Your task to perform on an android device: Show the shopping cart on bestbuy.com. Search for panasonic triple a on bestbuy.com, select the first entry, and add it to the cart. Image 0: 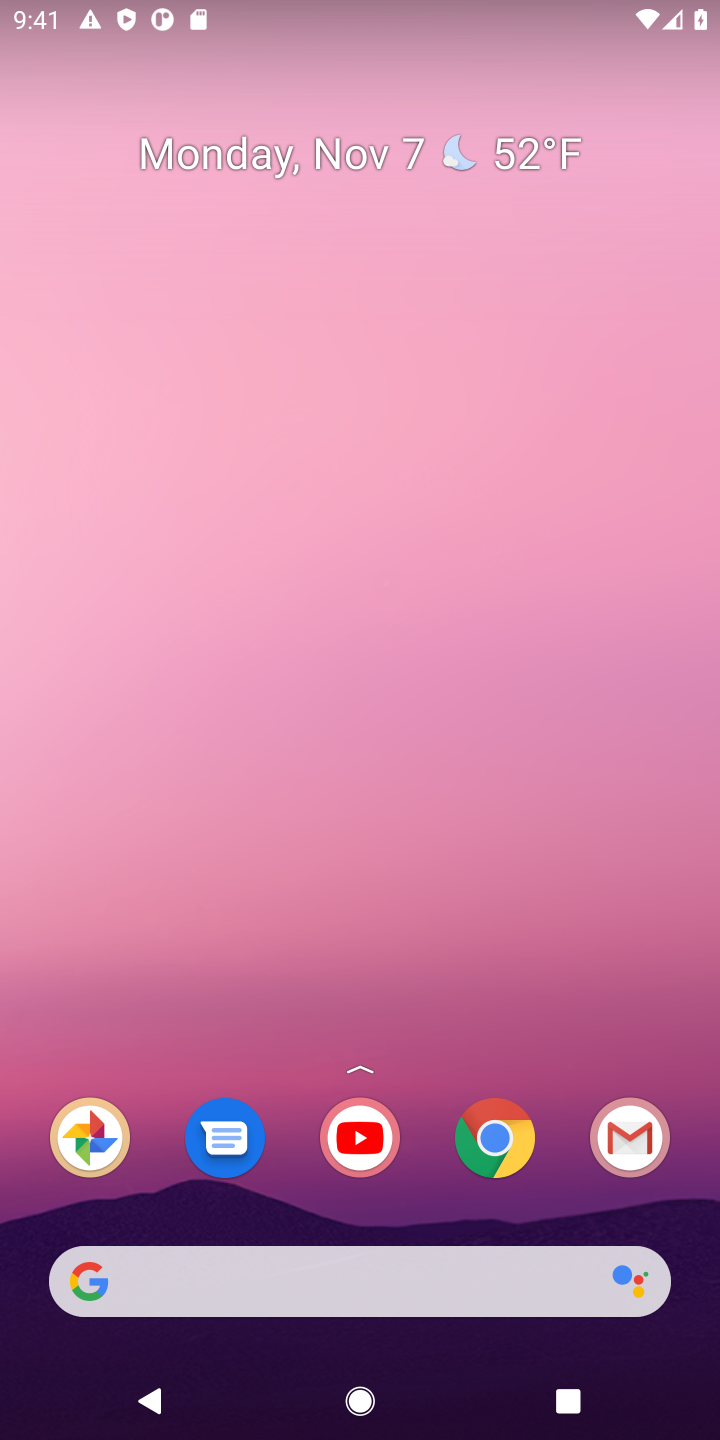
Step 0: drag from (414, 1211) to (467, 180)
Your task to perform on an android device: Show the shopping cart on bestbuy.com. Search for panasonic triple a on bestbuy.com, select the first entry, and add it to the cart. Image 1: 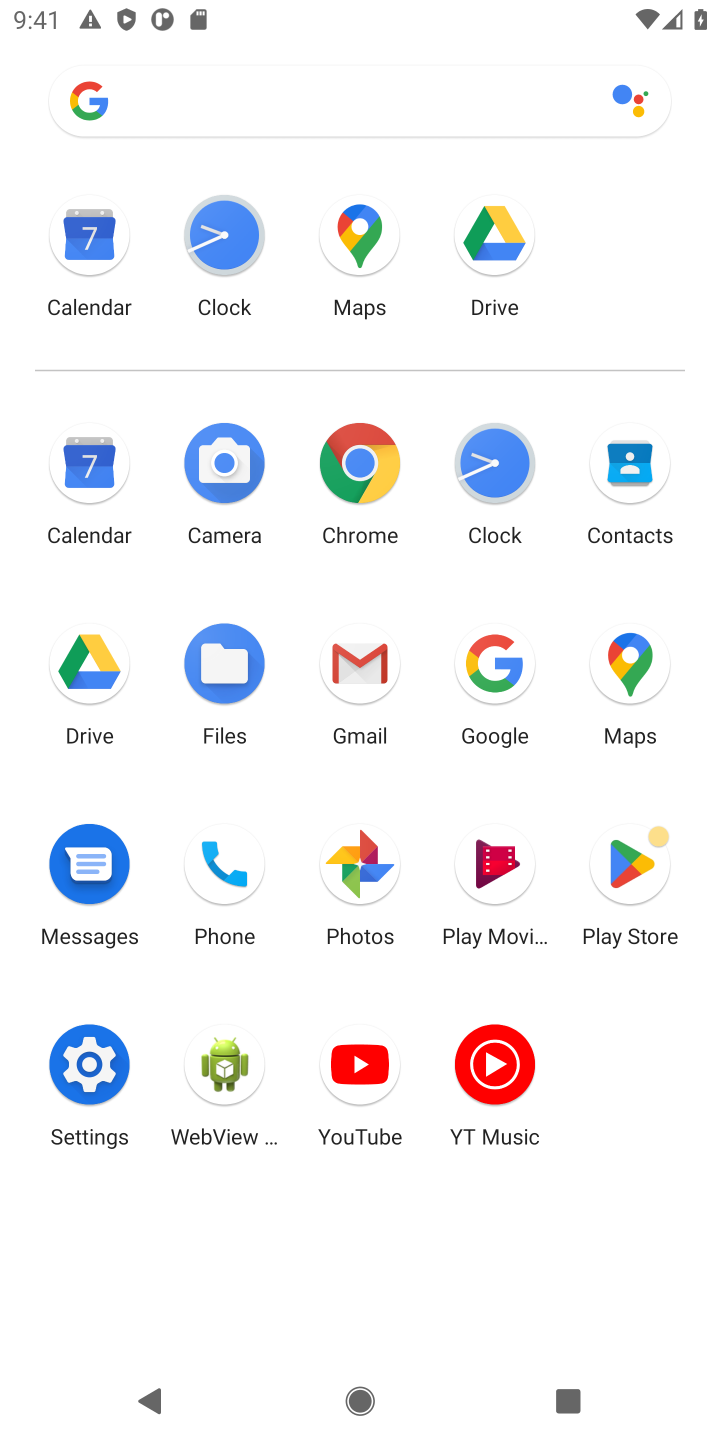
Step 1: click (357, 456)
Your task to perform on an android device: Show the shopping cart on bestbuy.com. Search for panasonic triple a on bestbuy.com, select the first entry, and add it to the cart. Image 2: 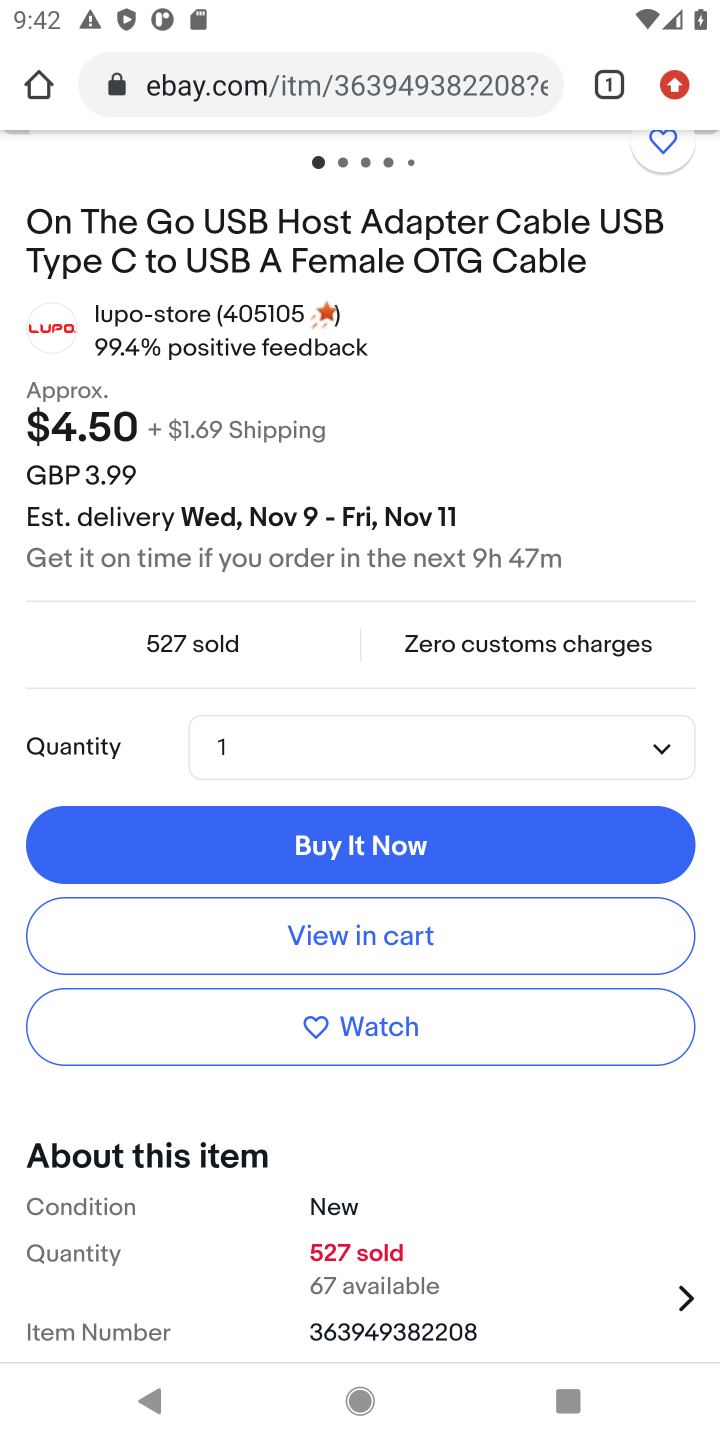
Step 2: click (378, 86)
Your task to perform on an android device: Show the shopping cart on bestbuy.com. Search for panasonic triple a on bestbuy.com, select the first entry, and add it to the cart. Image 3: 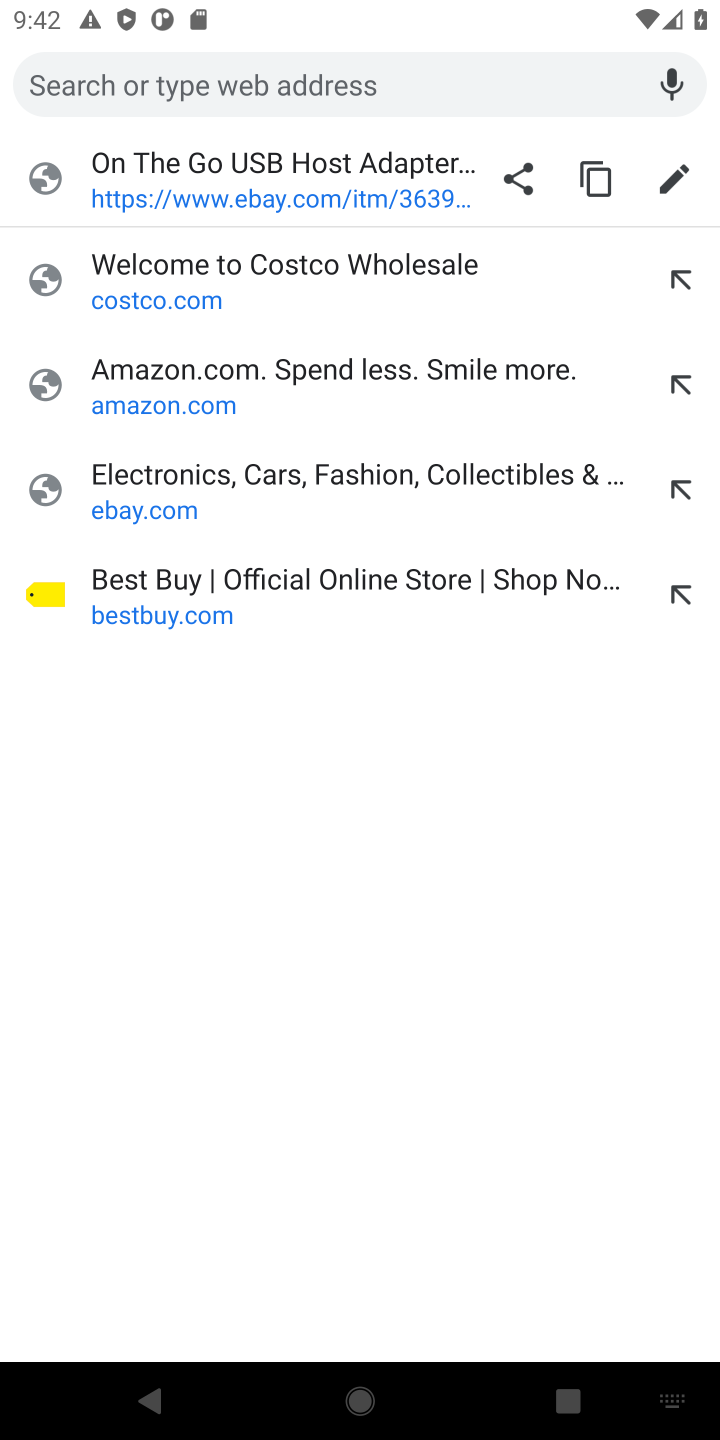
Step 3: type "bestbuy.com"
Your task to perform on an android device: Show the shopping cart on bestbuy.com. Search for panasonic triple a on bestbuy.com, select the first entry, and add it to the cart. Image 4: 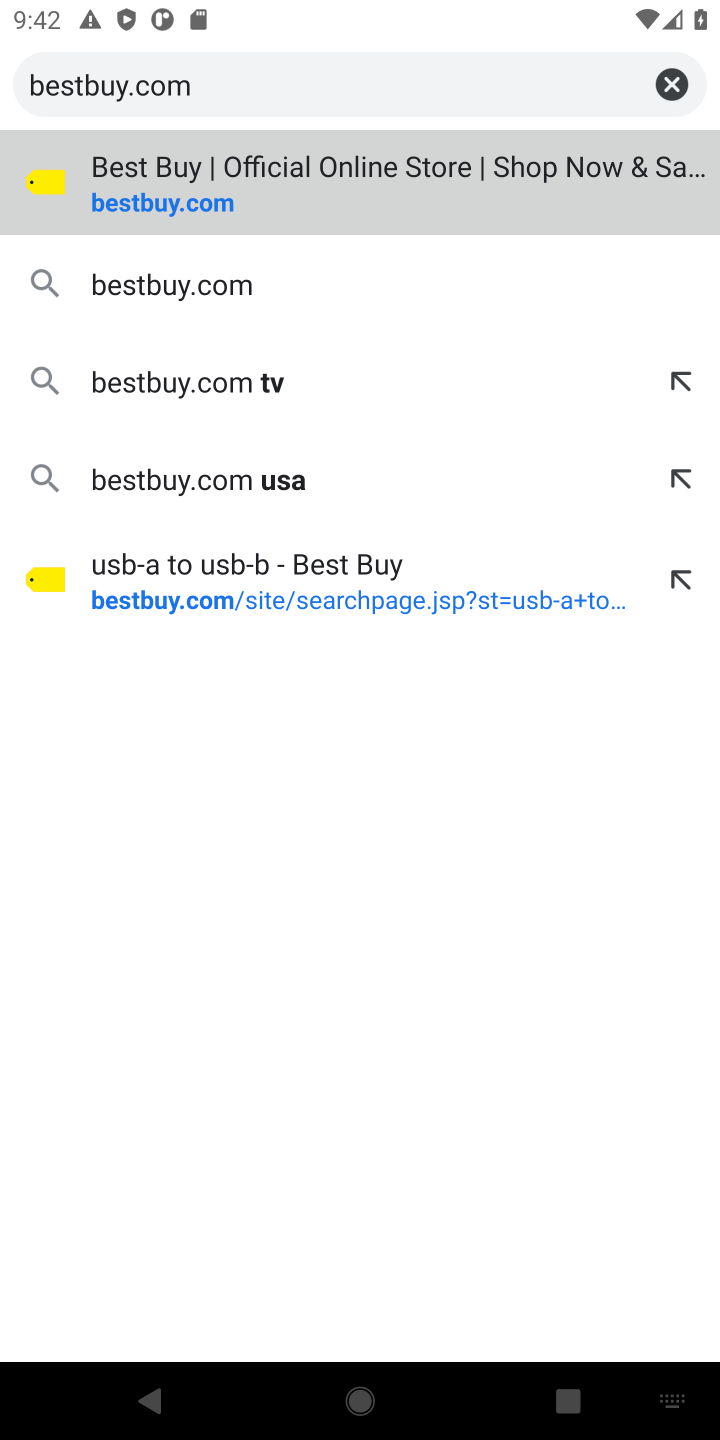
Step 4: press enter
Your task to perform on an android device: Show the shopping cart on bestbuy.com. Search for panasonic triple a on bestbuy.com, select the first entry, and add it to the cart. Image 5: 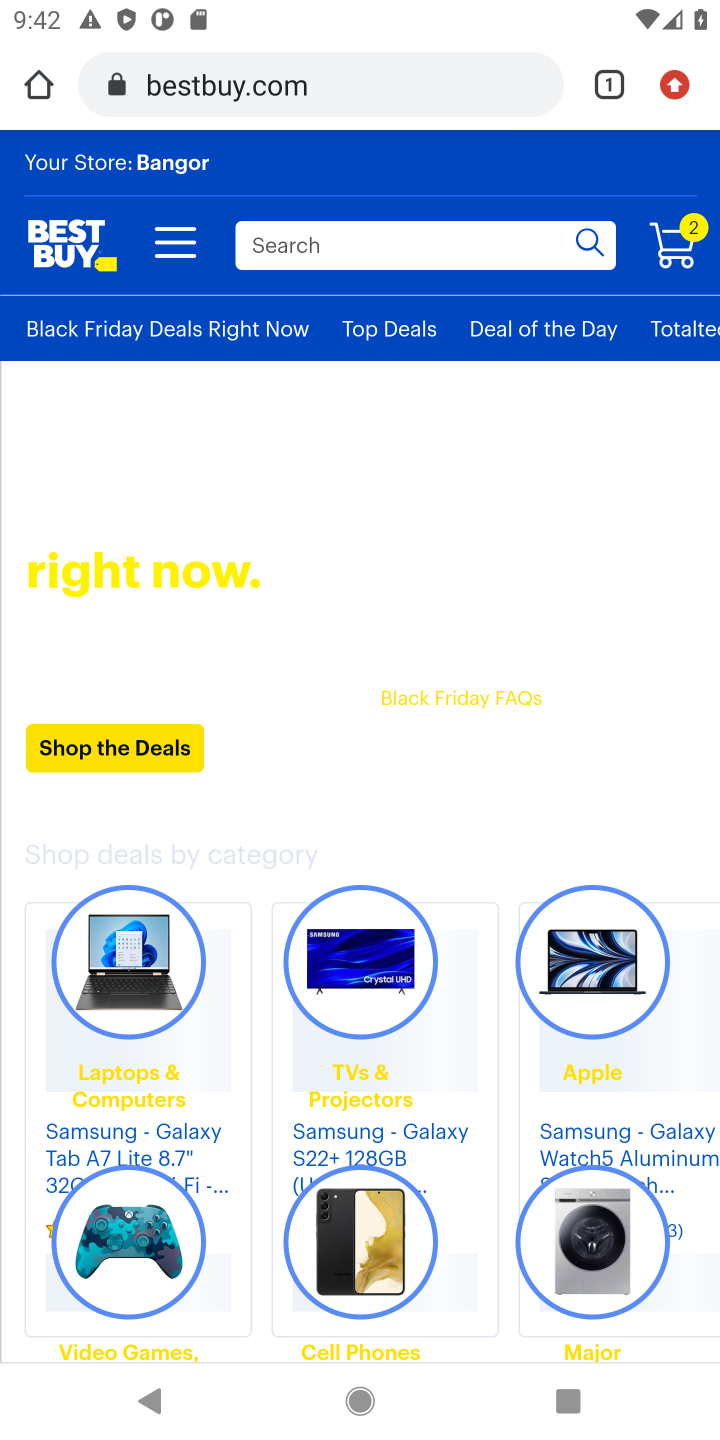
Step 5: click (672, 233)
Your task to perform on an android device: Show the shopping cart on bestbuy.com. Search for panasonic triple a on bestbuy.com, select the first entry, and add it to the cart. Image 6: 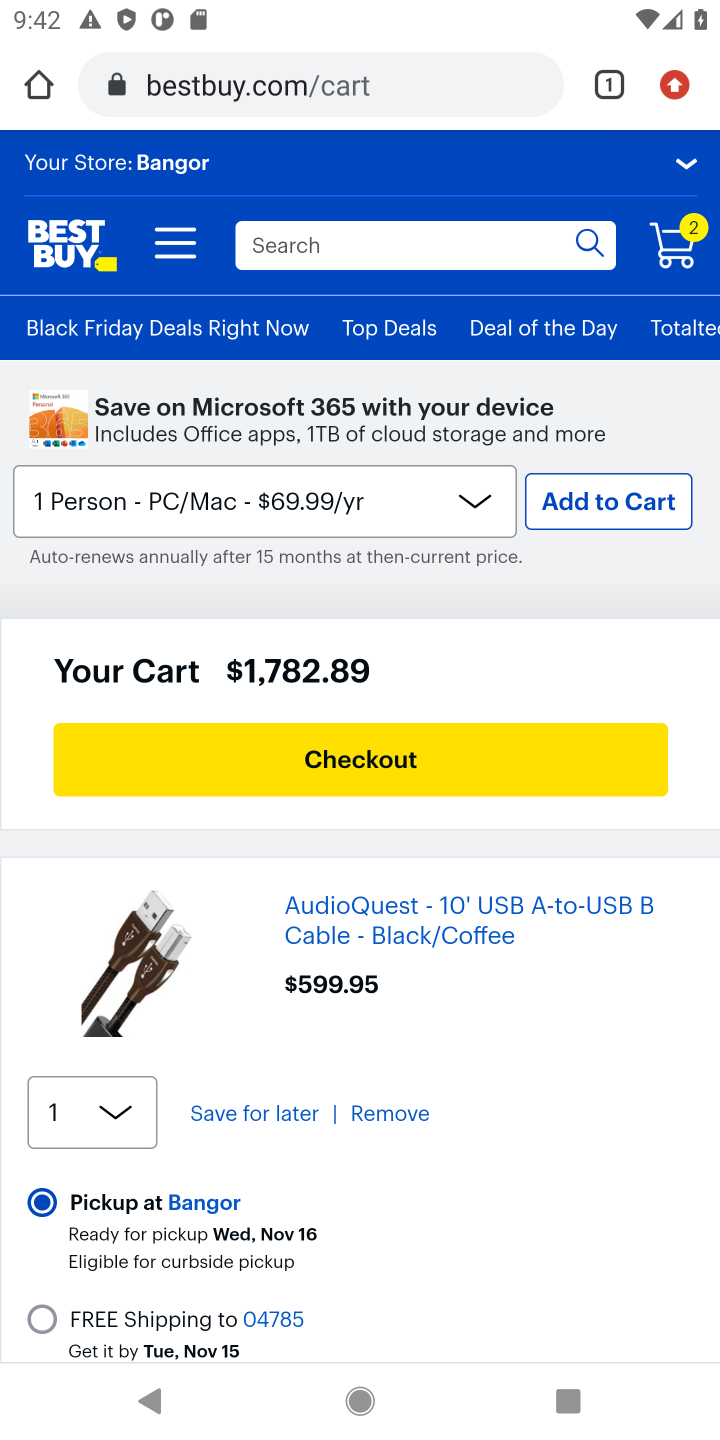
Step 6: click (470, 241)
Your task to perform on an android device: Show the shopping cart on bestbuy.com. Search for panasonic triple a on bestbuy.com, select the first entry, and add it to the cart. Image 7: 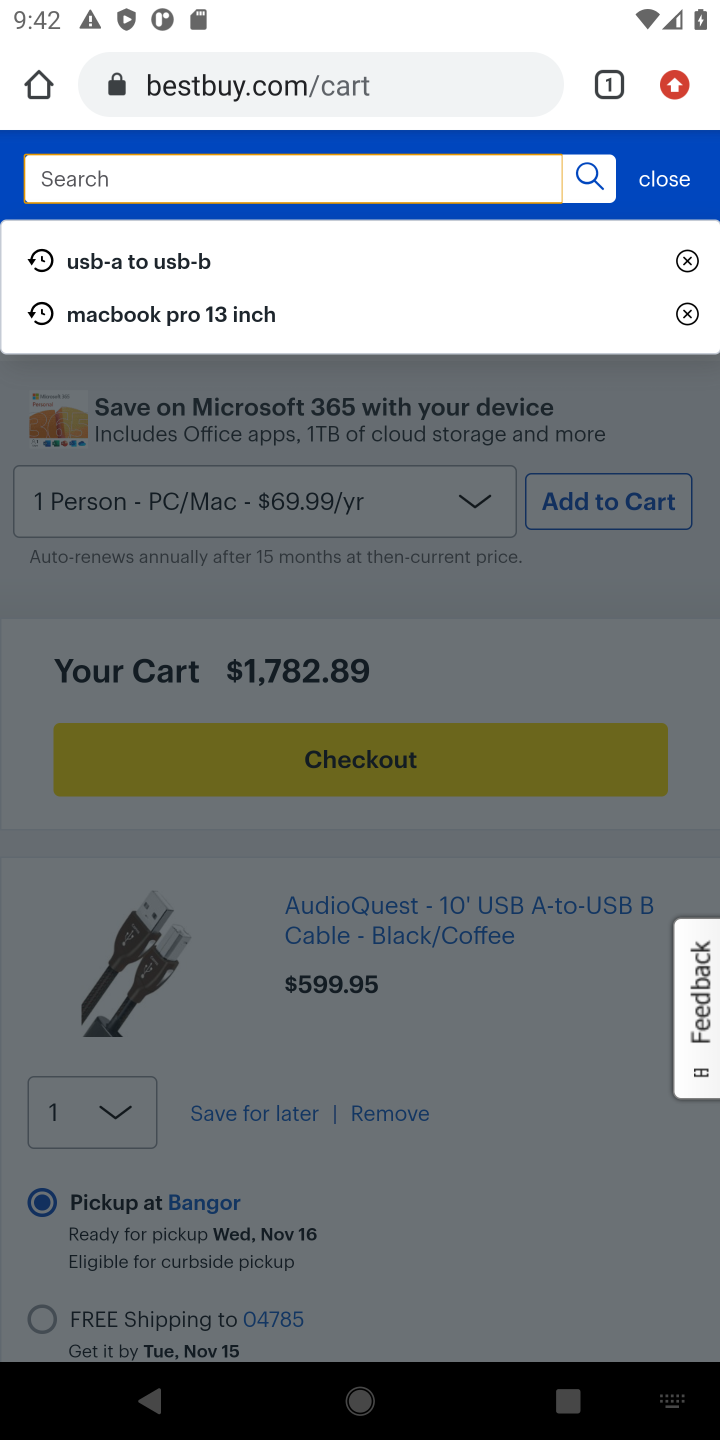
Step 7: type "panasonic triple a"
Your task to perform on an android device: Show the shopping cart on bestbuy.com. Search for panasonic triple a on bestbuy.com, select the first entry, and add it to the cart. Image 8: 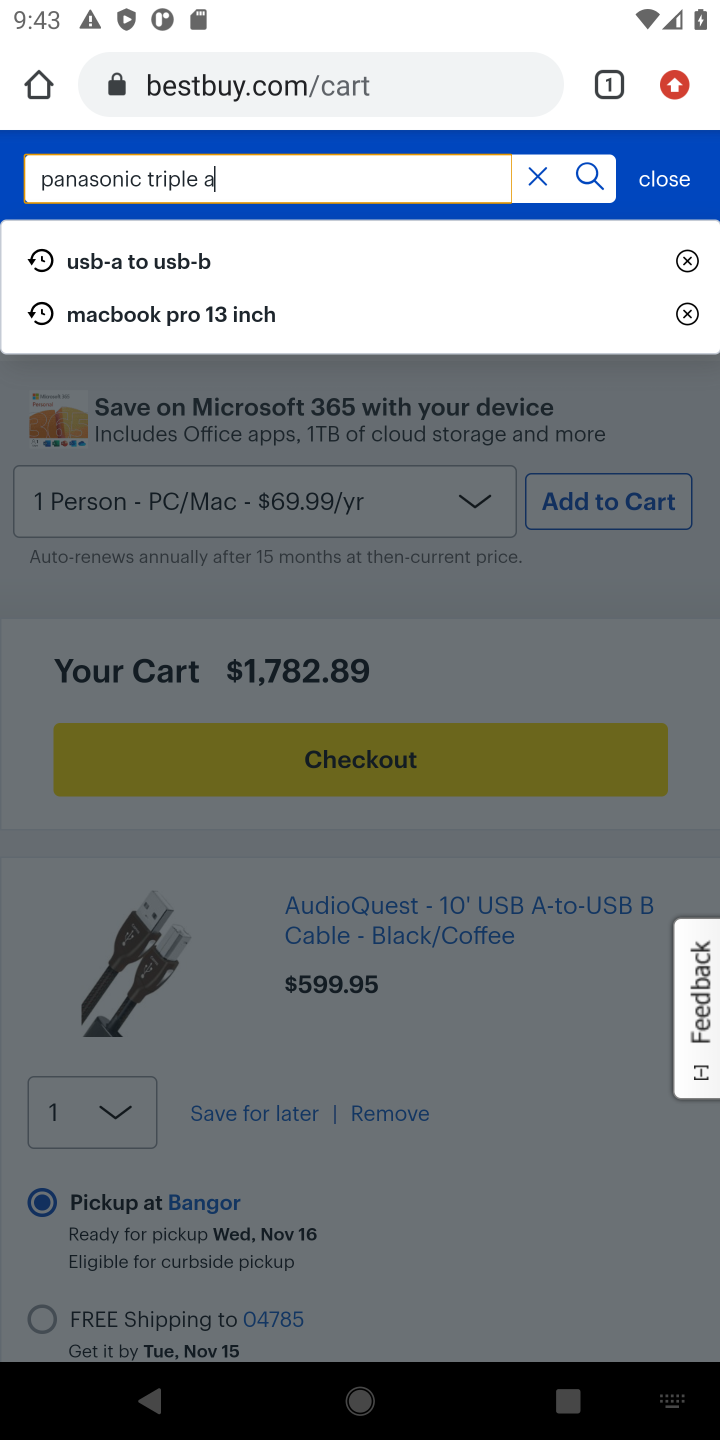
Step 8: press enter
Your task to perform on an android device: Show the shopping cart on bestbuy.com. Search for panasonic triple a on bestbuy.com, select the first entry, and add it to the cart. Image 9: 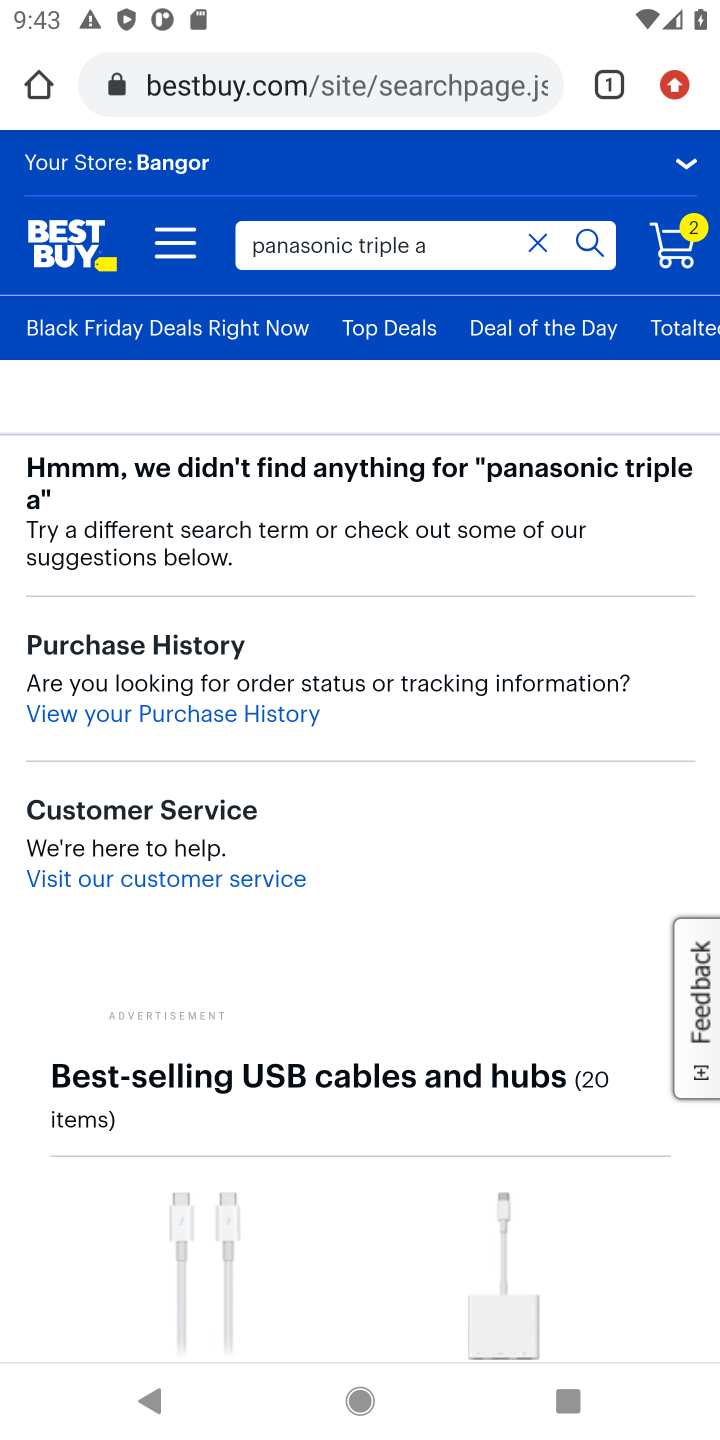
Step 9: task complete